Your task to perform on an android device: Open the stopwatch Image 0: 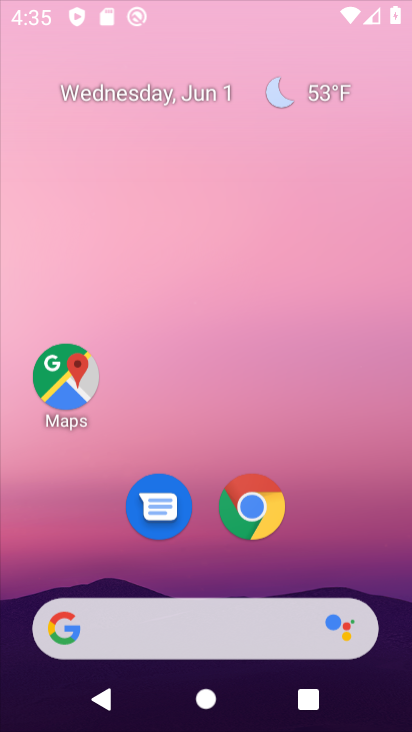
Step 0: click (409, 4)
Your task to perform on an android device: Open the stopwatch Image 1: 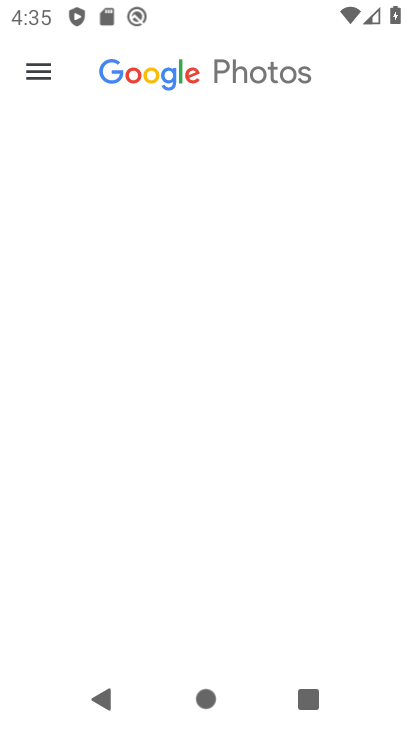
Step 1: press home button
Your task to perform on an android device: Open the stopwatch Image 2: 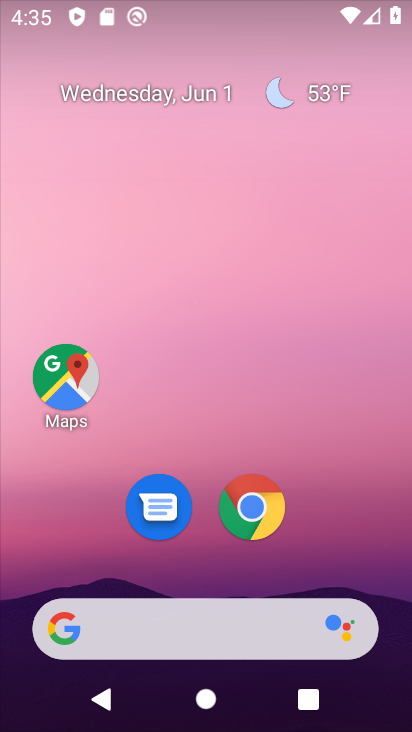
Step 2: drag from (343, 483) to (355, 14)
Your task to perform on an android device: Open the stopwatch Image 3: 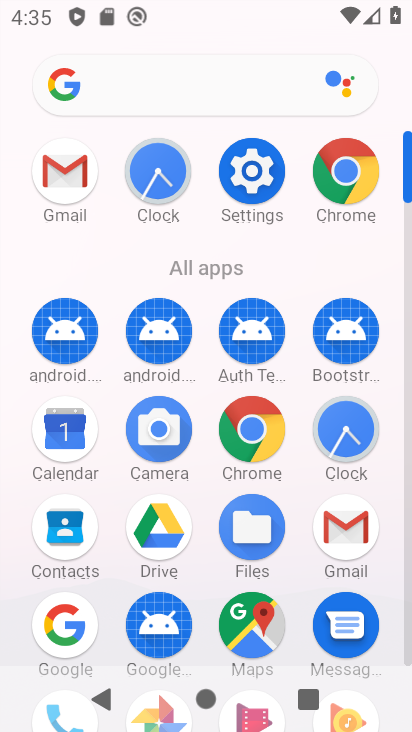
Step 3: click (362, 176)
Your task to perform on an android device: Open the stopwatch Image 4: 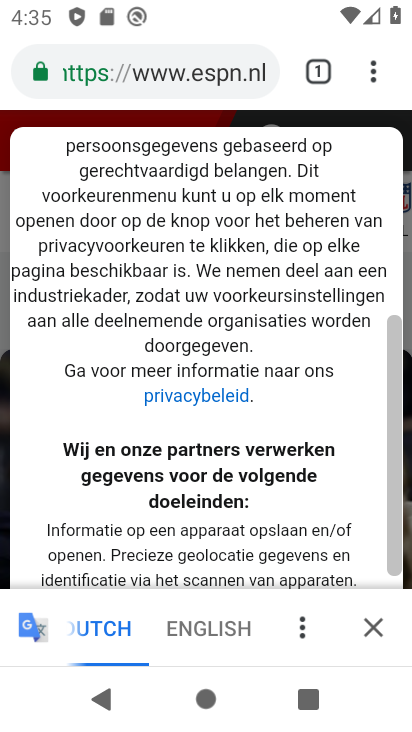
Step 4: press home button
Your task to perform on an android device: Open the stopwatch Image 5: 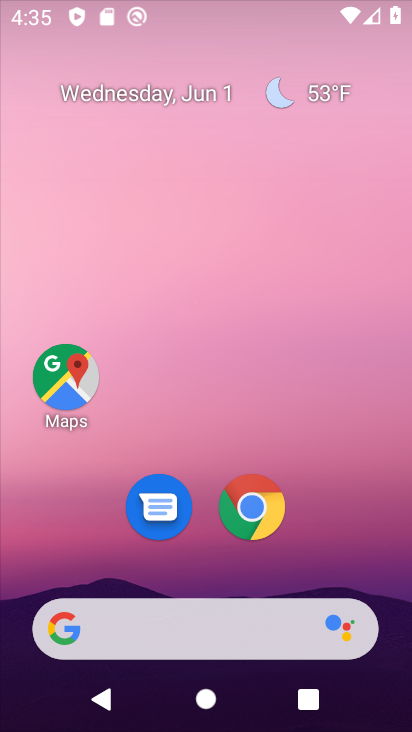
Step 5: drag from (387, 513) to (382, 12)
Your task to perform on an android device: Open the stopwatch Image 6: 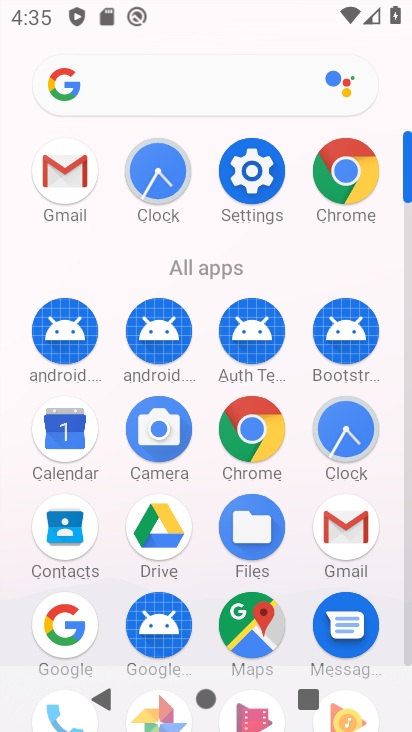
Step 6: click (344, 429)
Your task to perform on an android device: Open the stopwatch Image 7: 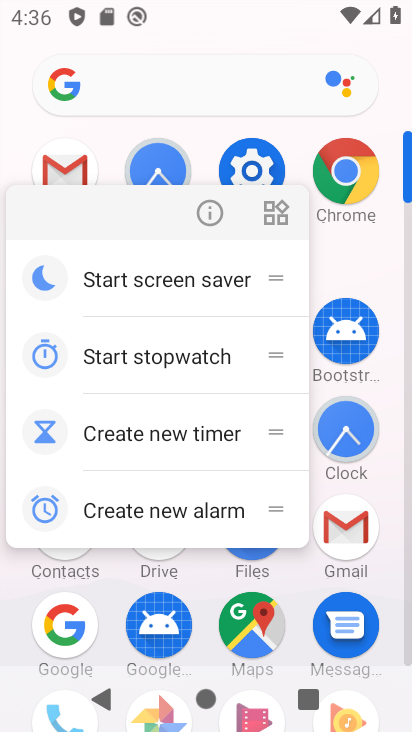
Step 7: click (347, 443)
Your task to perform on an android device: Open the stopwatch Image 8: 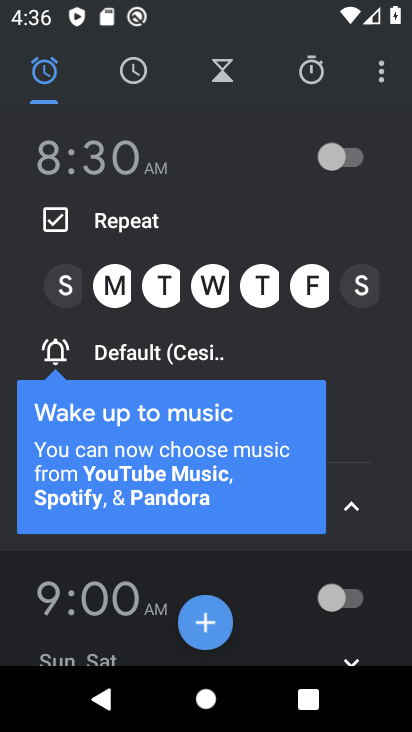
Step 8: click (304, 68)
Your task to perform on an android device: Open the stopwatch Image 9: 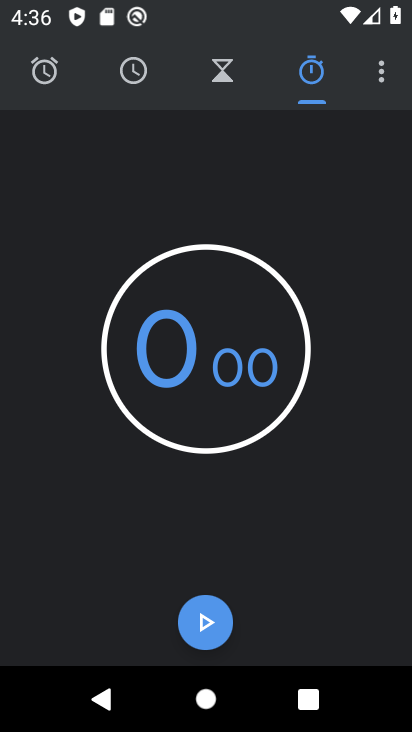
Step 9: task complete